Your task to perform on an android device: Go to wifi settings Image 0: 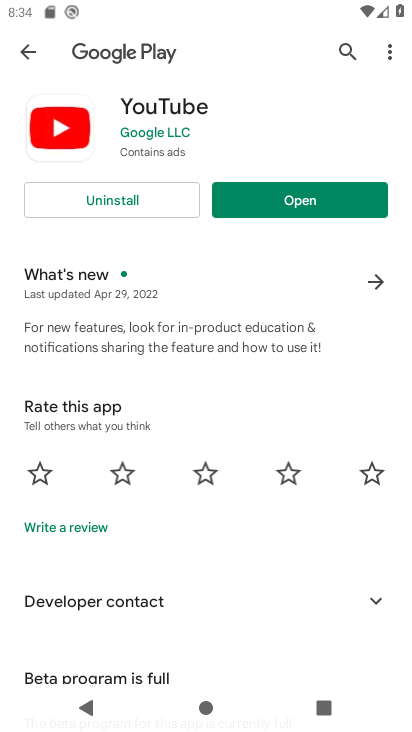
Step 0: press home button
Your task to perform on an android device: Go to wifi settings Image 1: 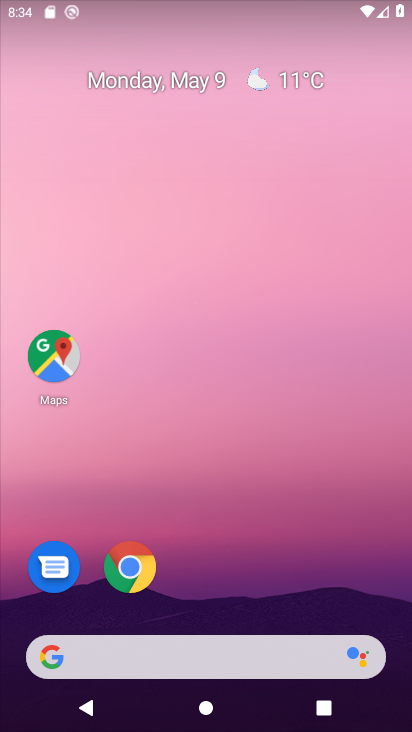
Step 1: drag from (266, 495) to (278, 12)
Your task to perform on an android device: Go to wifi settings Image 2: 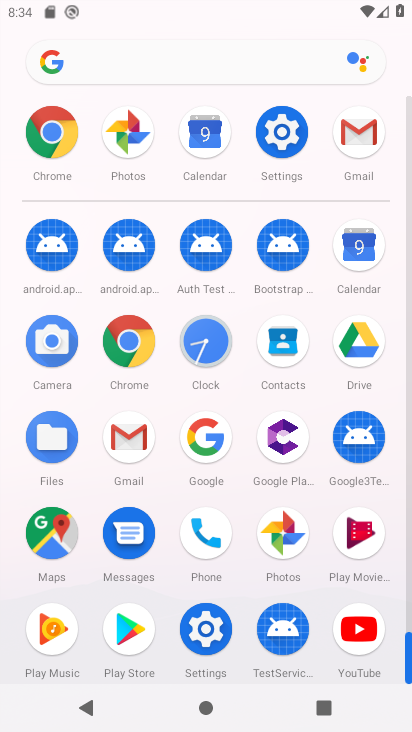
Step 2: click (272, 125)
Your task to perform on an android device: Go to wifi settings Image 3: 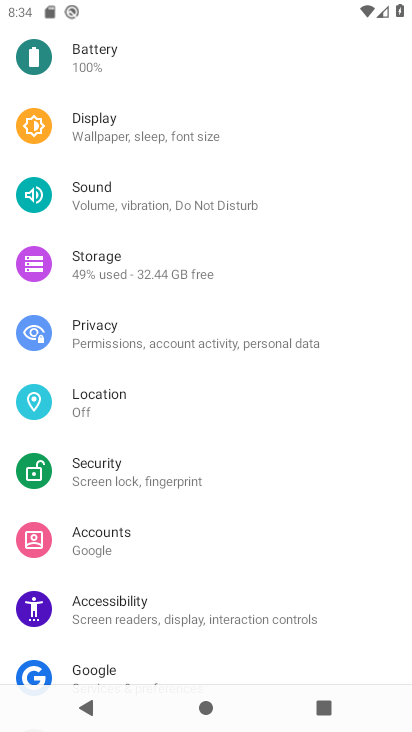
Step 3: drag from (230, 204) to (215, 501)
Your task to perform on an android device: Go to wifi settings Image 4: 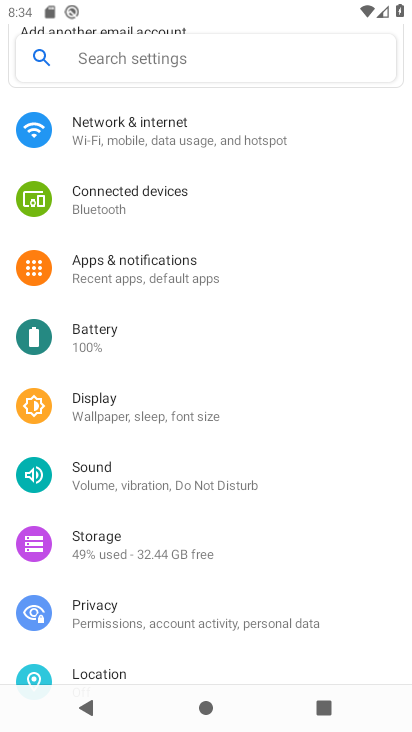
Step 4: click (229, 134)
Your task to perform on an android device: Go to wifi settings Image 5: 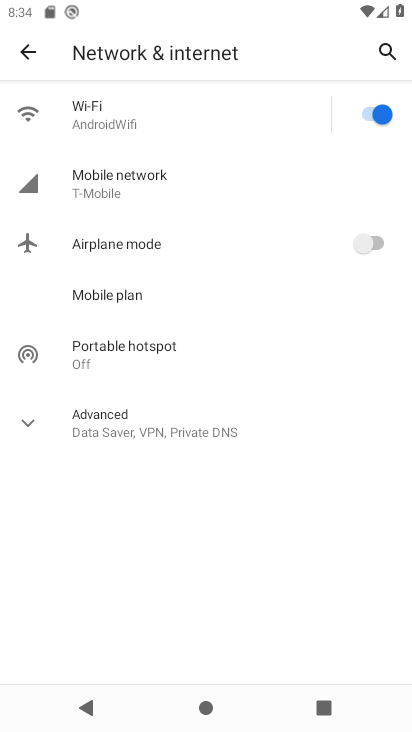
Step 5: click (137, 118)
Your task to perform on an android device: Go to wifi settings Image 6: 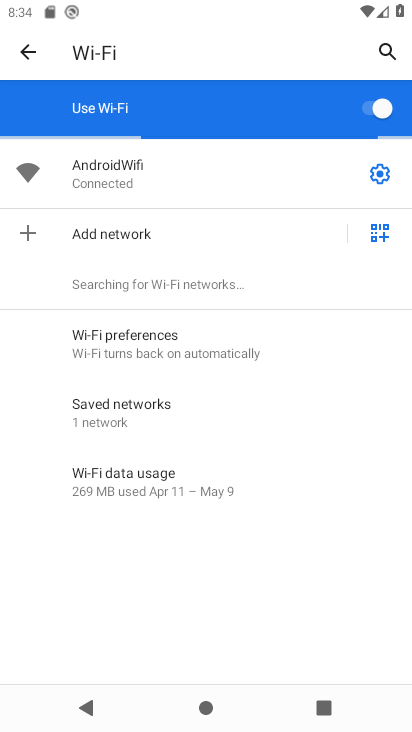
Step 6: task complete